Your task to perform on an android device: Open the map Image 0: 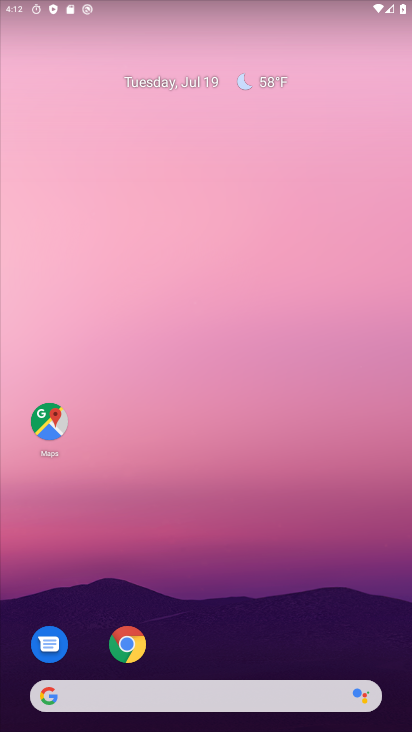
Step 0: drag from (267, 608) to (255, 105)
Your task to perform on an android device: Open the map Image 1: 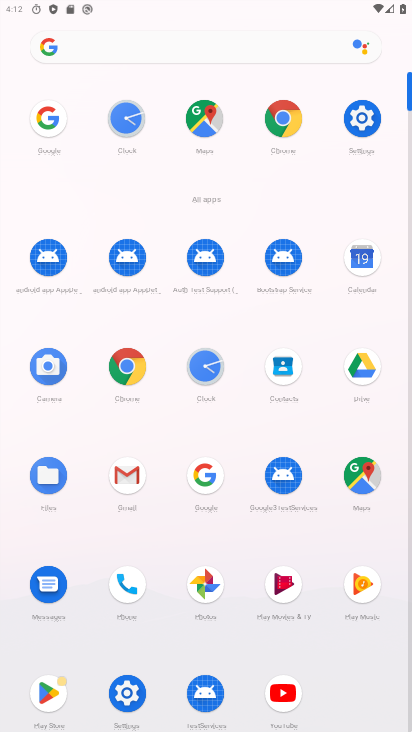
Step 1: click (199, 121)
Your task to perform on an android device: Open the map Image 2: 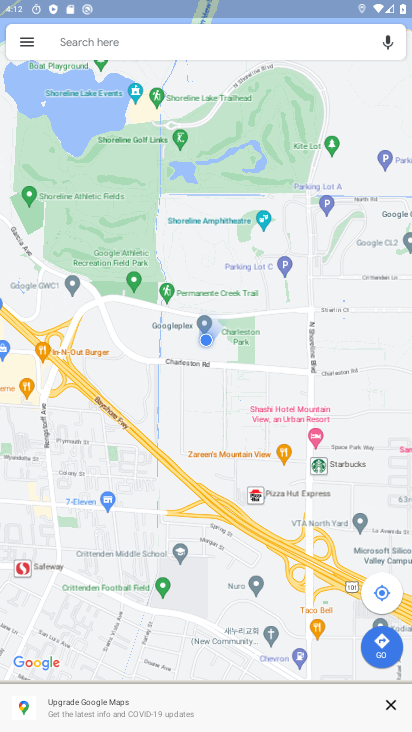
Step 2: task complete